Your task to perform on an android device: Go to internet settings Image 0: 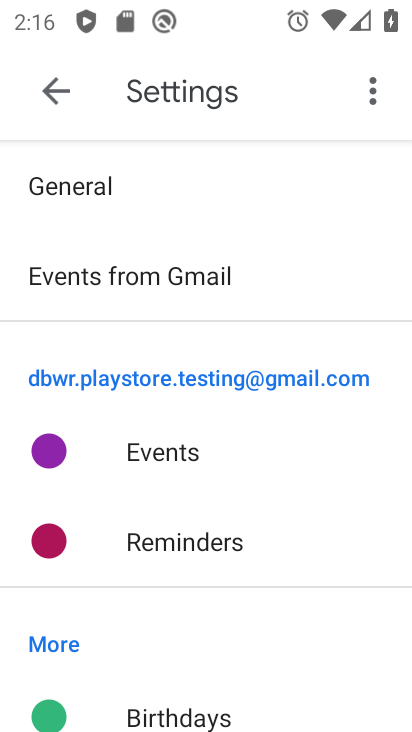
Step 0: press home button
Your task to perform on an android device: Go to internet settings Image 1: 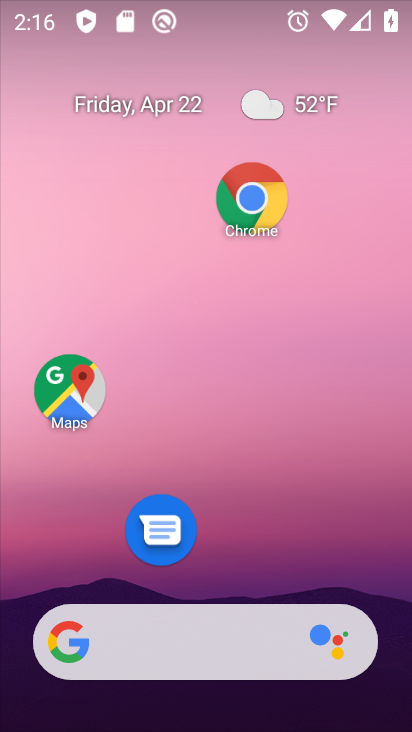
Step 1: drag from (227, 582) to (271, 37)
Your task to perform on an android device: Go to internet settings Image 2: 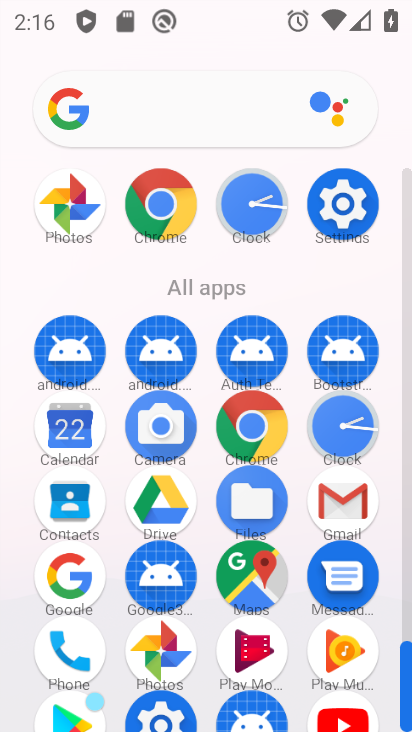
Step 2: click (348, 202)
Your task to perform on an android device: Go to internet settings Image 3: 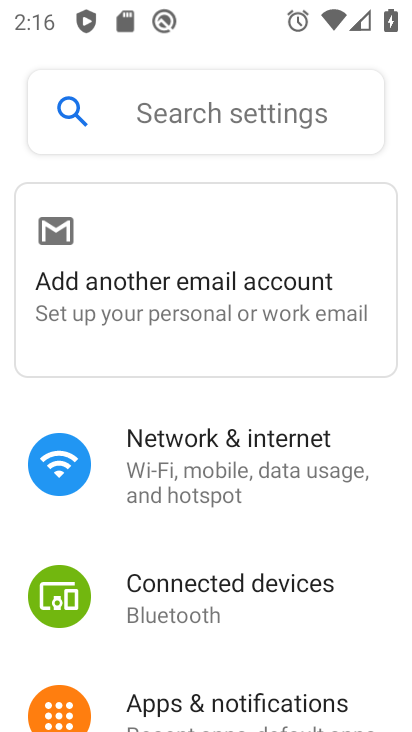
Step 3: click (201, 456)
Your task to perform on an android device: Go to internet settings Image 4: 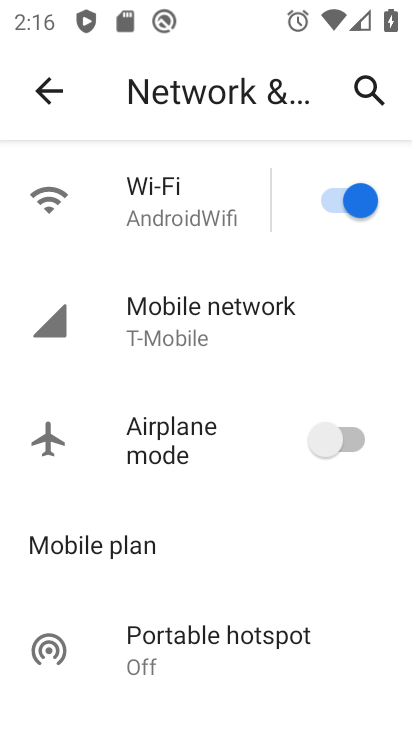
Step 4: drag from (206, 575) to (274, 220)
Your task to perform on an android device: Go to internet settings Image 5: 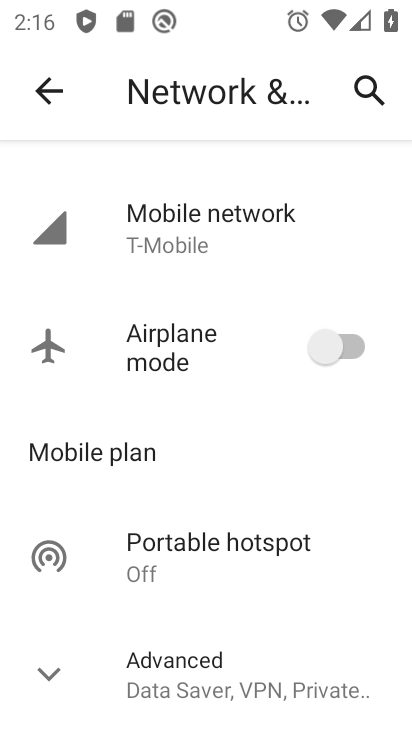
Step 5: drag from (202, 590) to (236, 346)
Your task to perform on an android device: Go to internet settings Image 6: 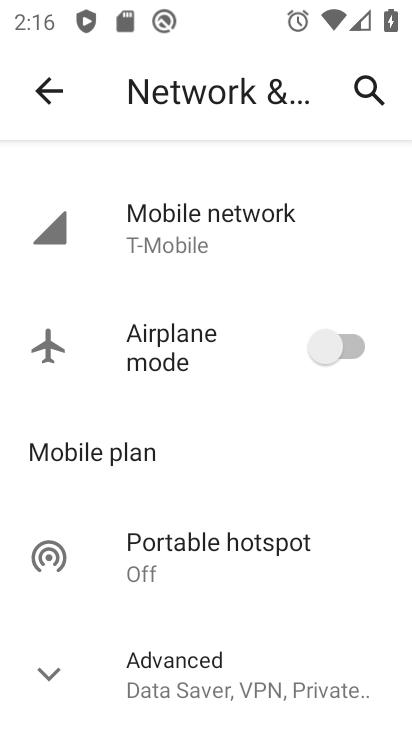
Step 6: click (52, 672)
Your task to perform on an android device: Go to internet settings Image 7: 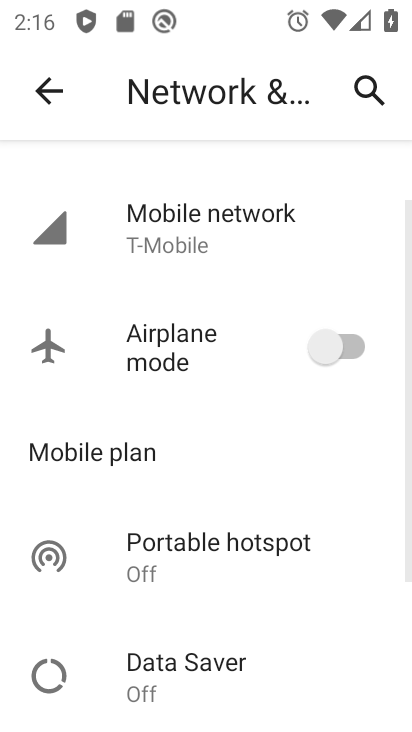
Step 7: task complete